Your task to perform on an android device: turn pop-ups off in chrome Image 0: 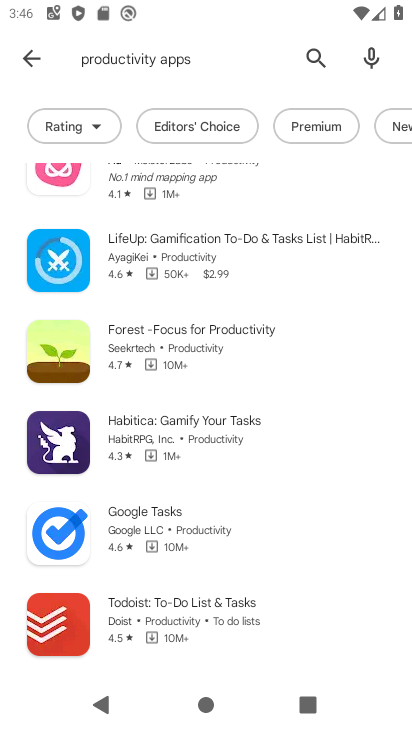
Step 0: press home button
Your task to perform on an android device: turn pop-ups off in chrome Image 1: 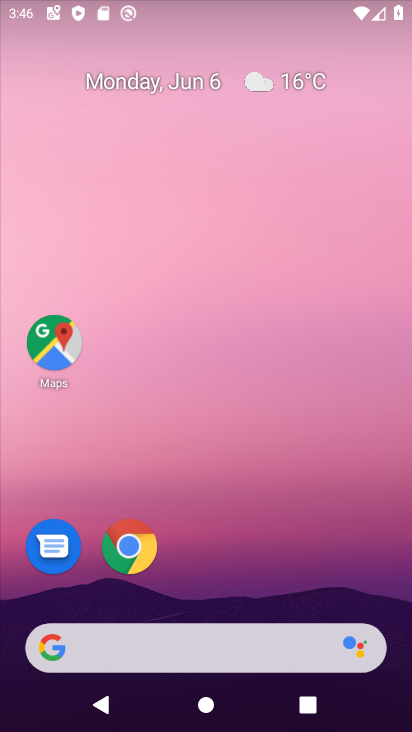
Step 1: drag from (299, 584) to (294, 83)
Your task to perform on an android device: turn pop-ups off in chrome Image 2: 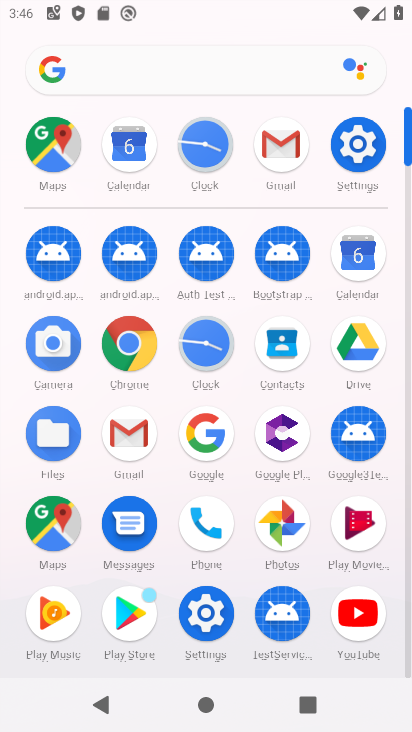
Step 2: click (137, 354)
Your task to perform on an android device: turn pop-ups off in chrome Image 3: 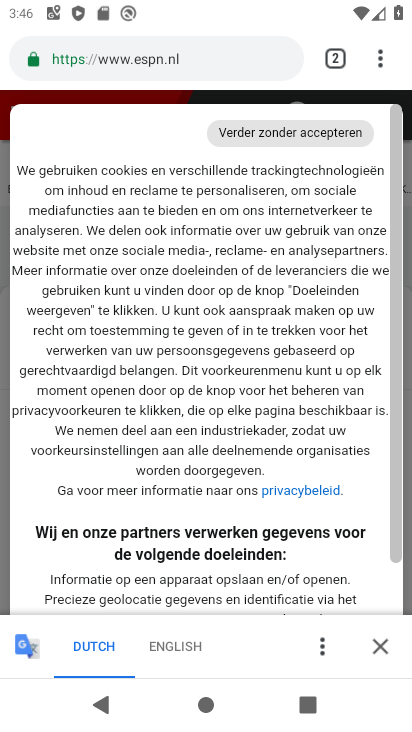
Step 3: drag from (380, 67) to (190, 576)
Your task to perform on an android device: turn pop-ups off in chrome Image 4: 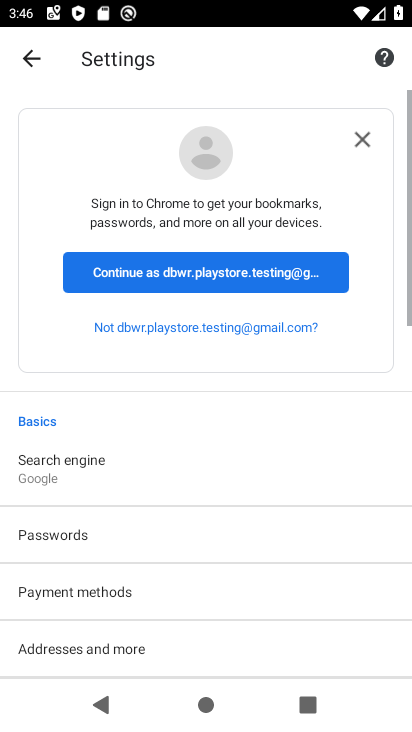
Step 4: drag from (192, 215) to (192, 171)
Your task to perform on an android device: turn pop-ups off in chrome Image 5: 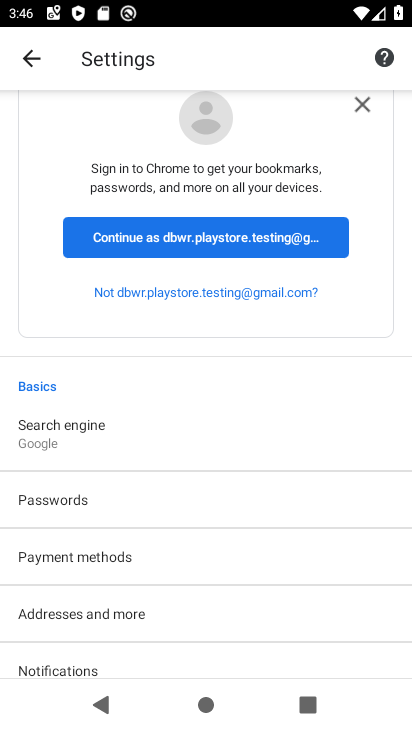
Step 5: drag from (172, 632) to (214, 264)
Your task to perform on an android device: turn pop-ups off in chrome Image 6: 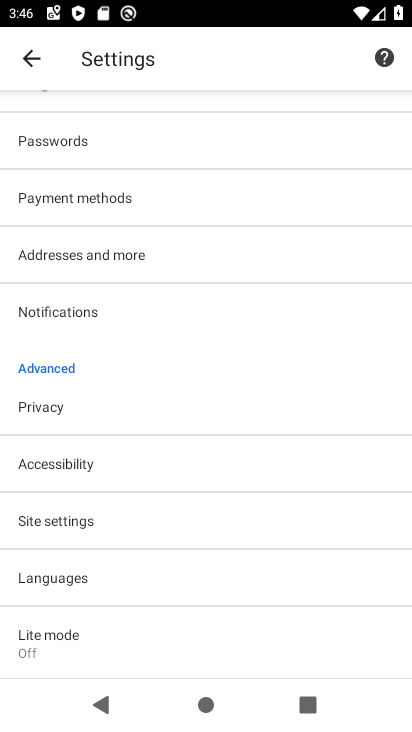
Step 6: click (84, 528)
Your task to perform on an android device: turn pop-ups off in chrome Image 7: 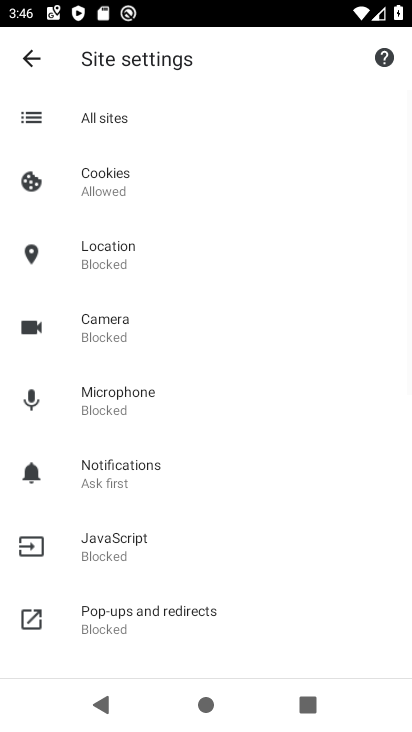
Step 7: drag from (239, 577) to (331, 112)
Your task to perform on an android device: turn pop-ups off in chrome Image 8: 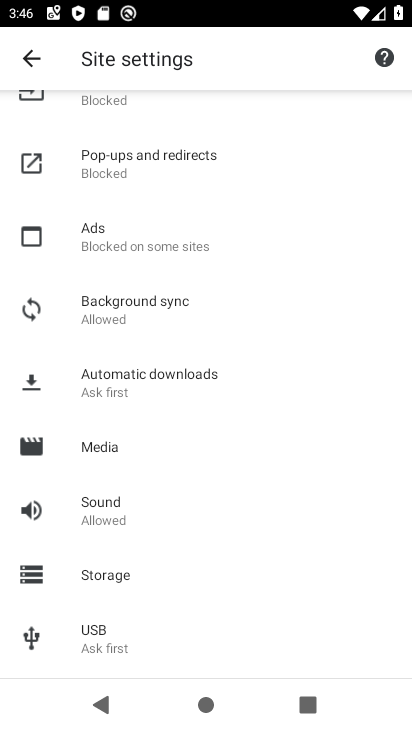
Step 8: click (115, 174)
Your task to perform on an android device: turn pop-ups off in chrome Image 9: 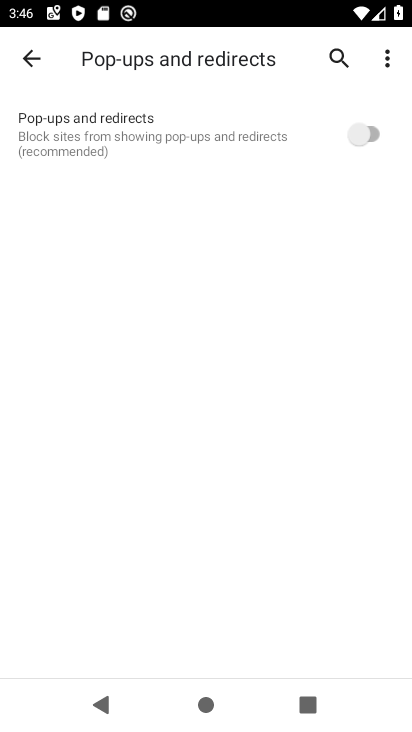
Step 9: task complete